Your task to perform on an android device: turn on translation in the chrome app Image 0: 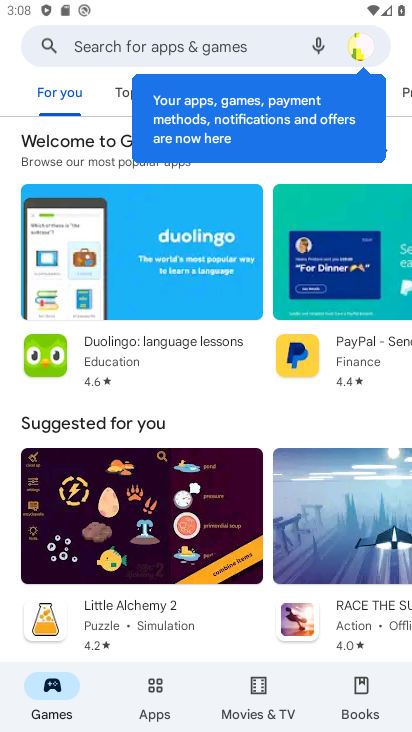
Step 0: press home button
Your task to perform on an android device: turn on translation in the chrome app Image 1: 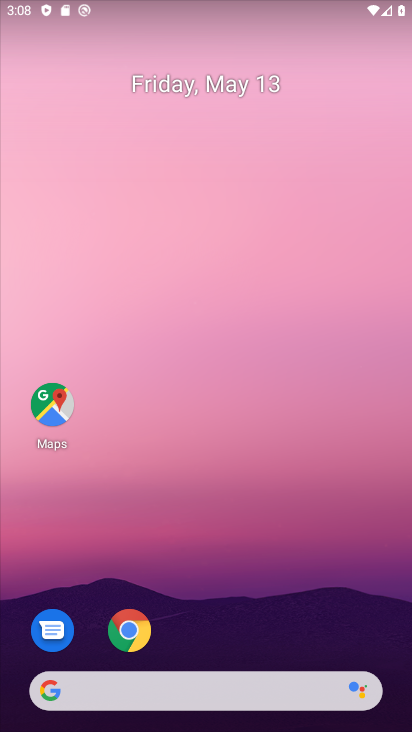
Step 1: drag from (218, 650) to (203, 137)
Your task to perform on an android device: turn on translation in the chrome app Image 2: 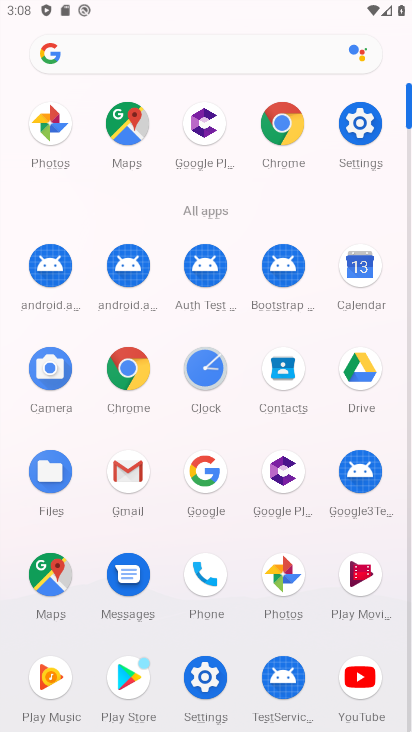
Step 2: click (133, 379)
Your task to perform on an android device: turn on translation in the chrome app Image 3: 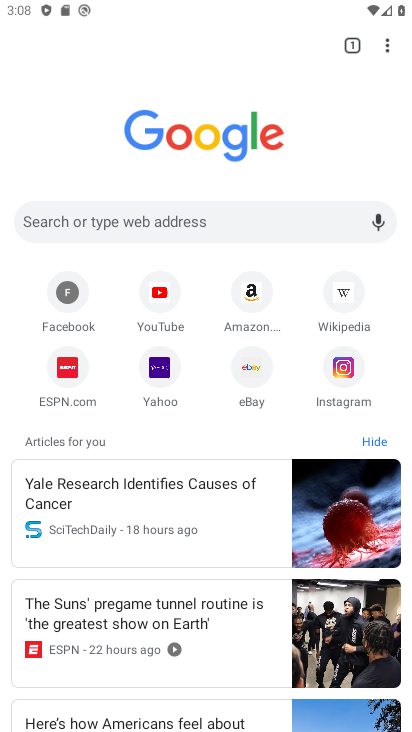
Step 3: click (383, 45)
Your task to perform on an android device: turn on translation in the chrome app Image 4: 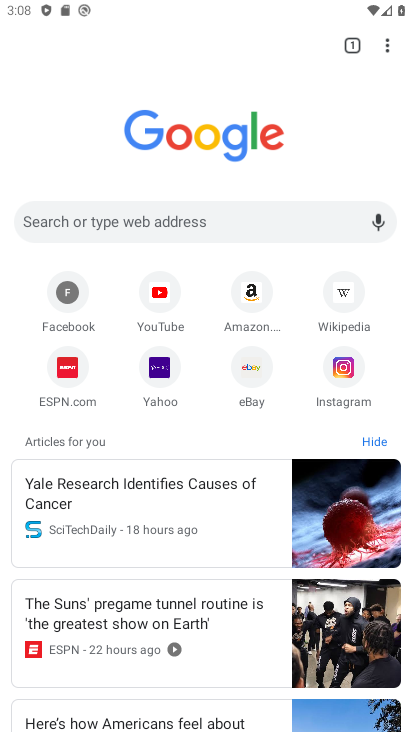
Step 4: drag from (383, 45) to (222, 372)
Your task to perform on an android device: turn on translation in the chrome app Image 5: 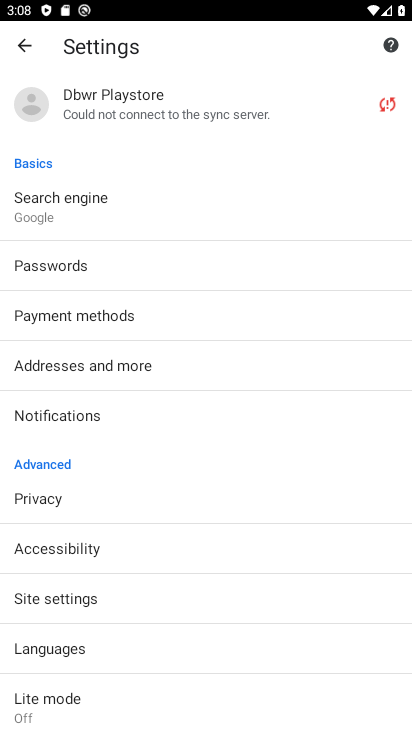
Step 5: click (76, 649)
Your task to perform on an android device: turn on translation in the chrome app Image 6: 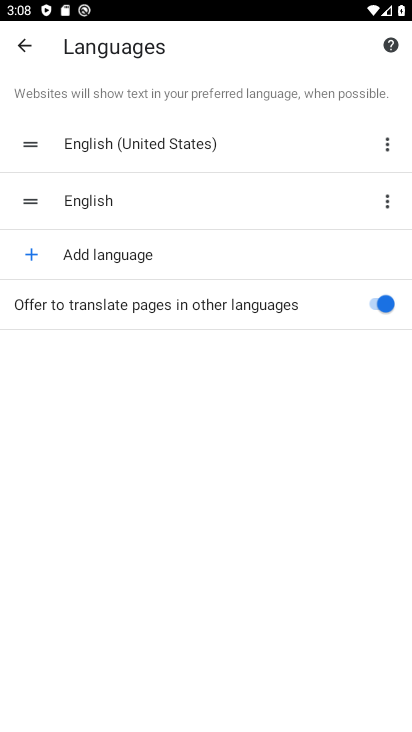
Step 6: task complete